Your task to perform on an android device: open chrome privacy settings Image 0: 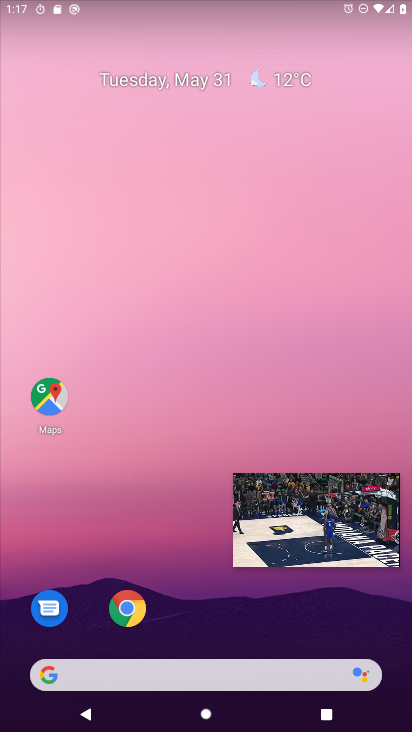
Step 0: drag from (301, 497) to (368, 655)
Your task to perform on an android device: open chrome privacy settings Image 1: 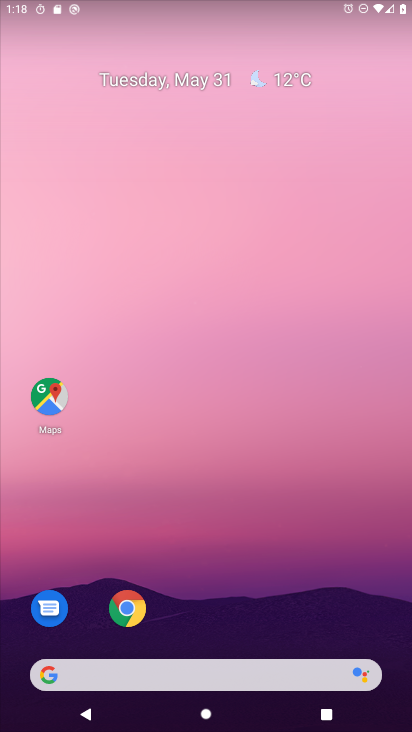
Step 1: click (126, 609)
Your task to perform on an android device: open chrome privacy settings Image 2: 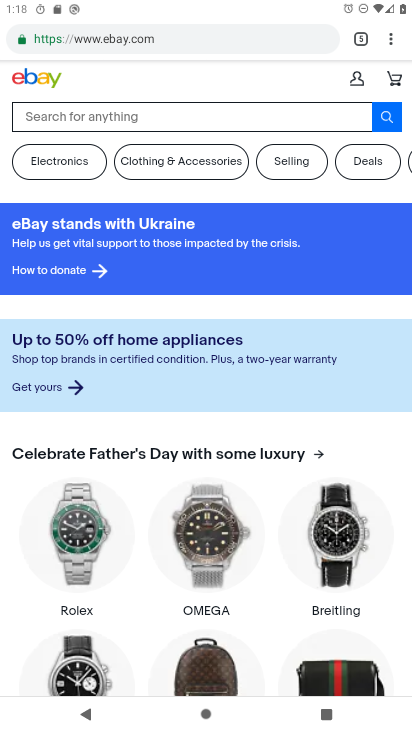
Step 2: click (393, 43)
Your task to perform on an android device: open chrome privacy settings Image 3: 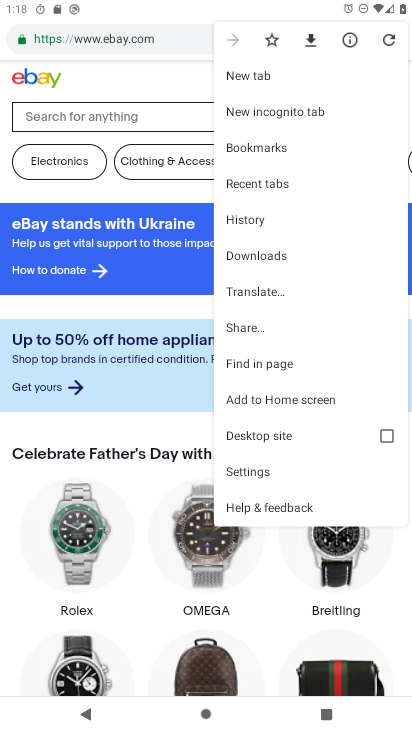
Step 3: click (247, 474)
Your task to perform on an android device: open chrome privacy settings Image 4: 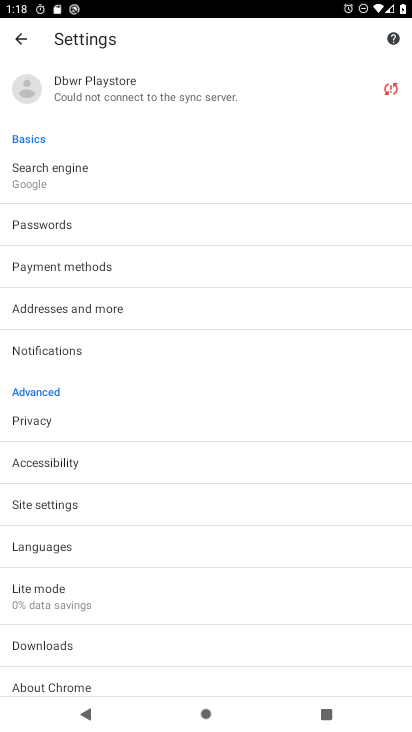
Step 4: click (25, 425)
Your task to perform on an android device: open chrome privacy settings Image 5: 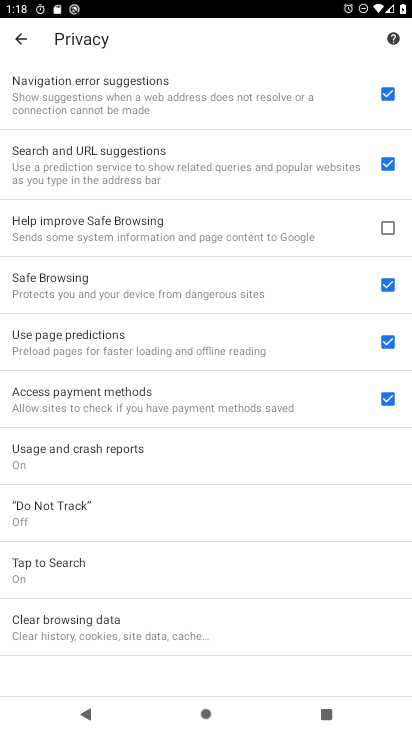
Step 5: task complete